Your task to perform on an android device: Go to CNN.com Image 0: 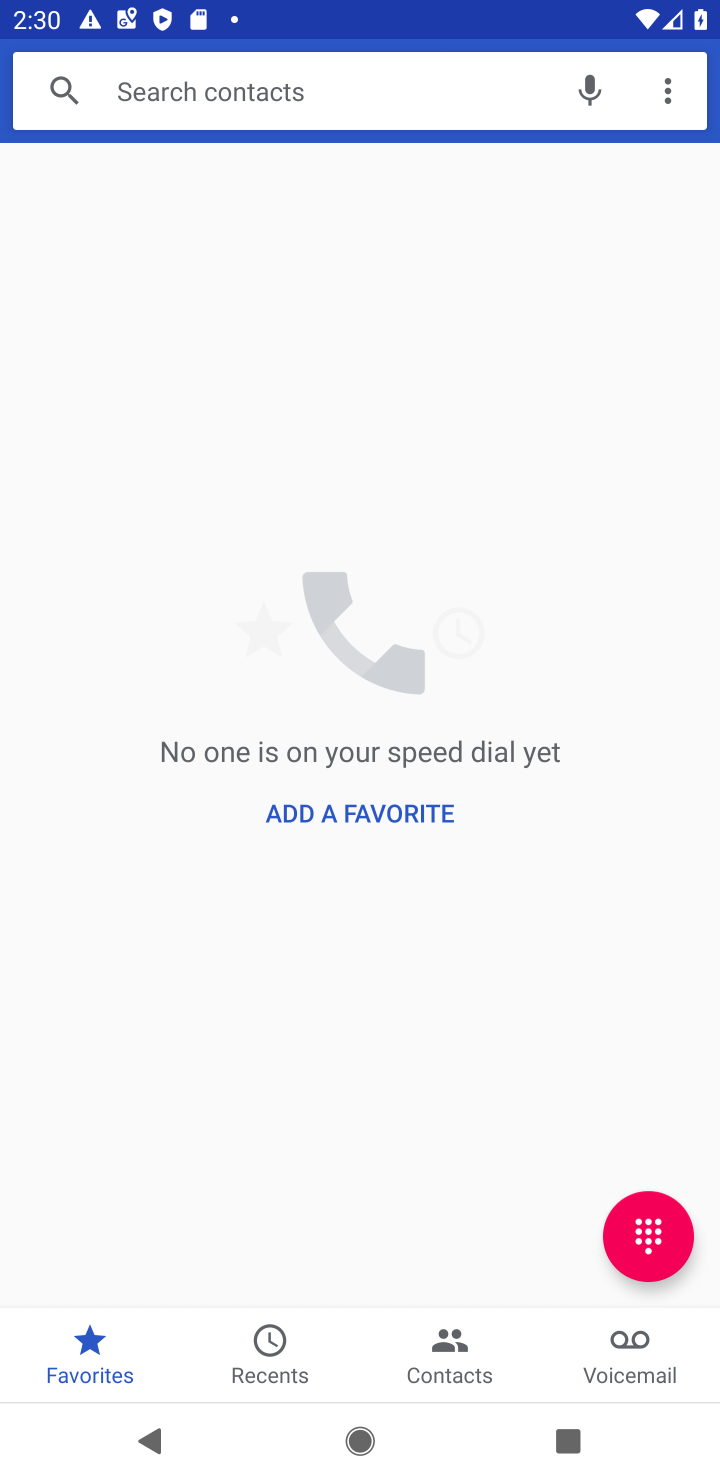
Step 0: press home button
Your task to perform on an android device: Go to CNN.com Image 1: 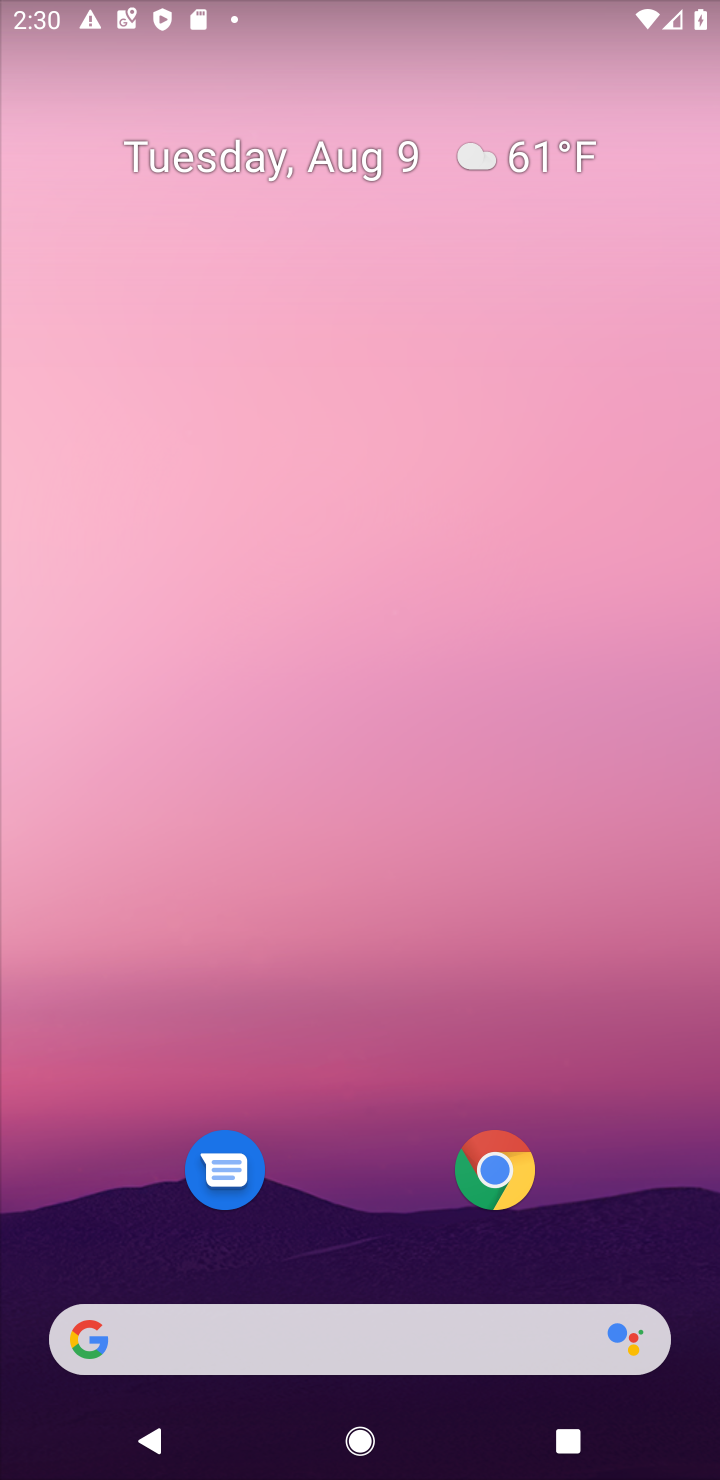
Step 1: drag from (277, 1209) to (376, 268)
Your task to perform on an android device: Go to CNN.com Image 2: 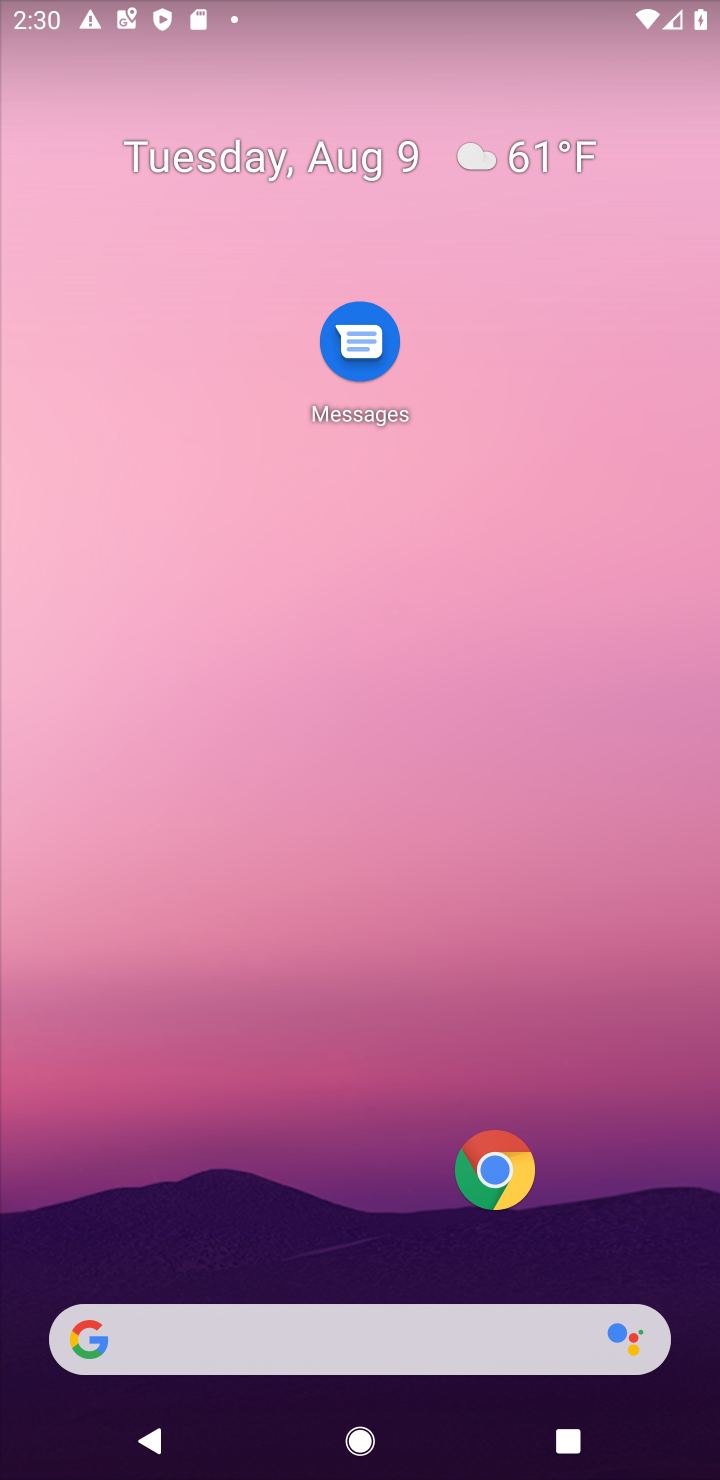
Step 2: click (491, 1188)
Your task to perform on an android device: Go to CNN.com Image 3: 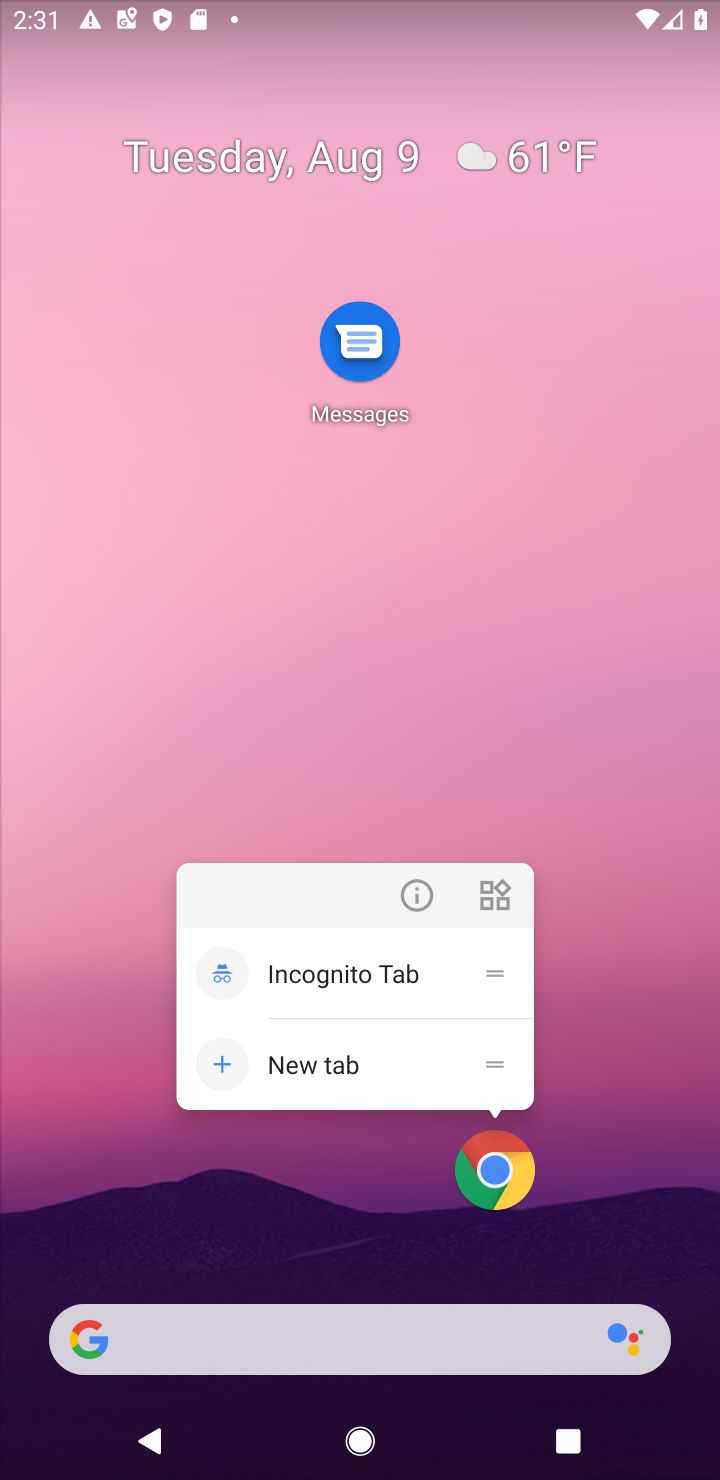
Step 3: click (491, 1173)
Your task to perform on an android device: Go to CNN.com Image 4: 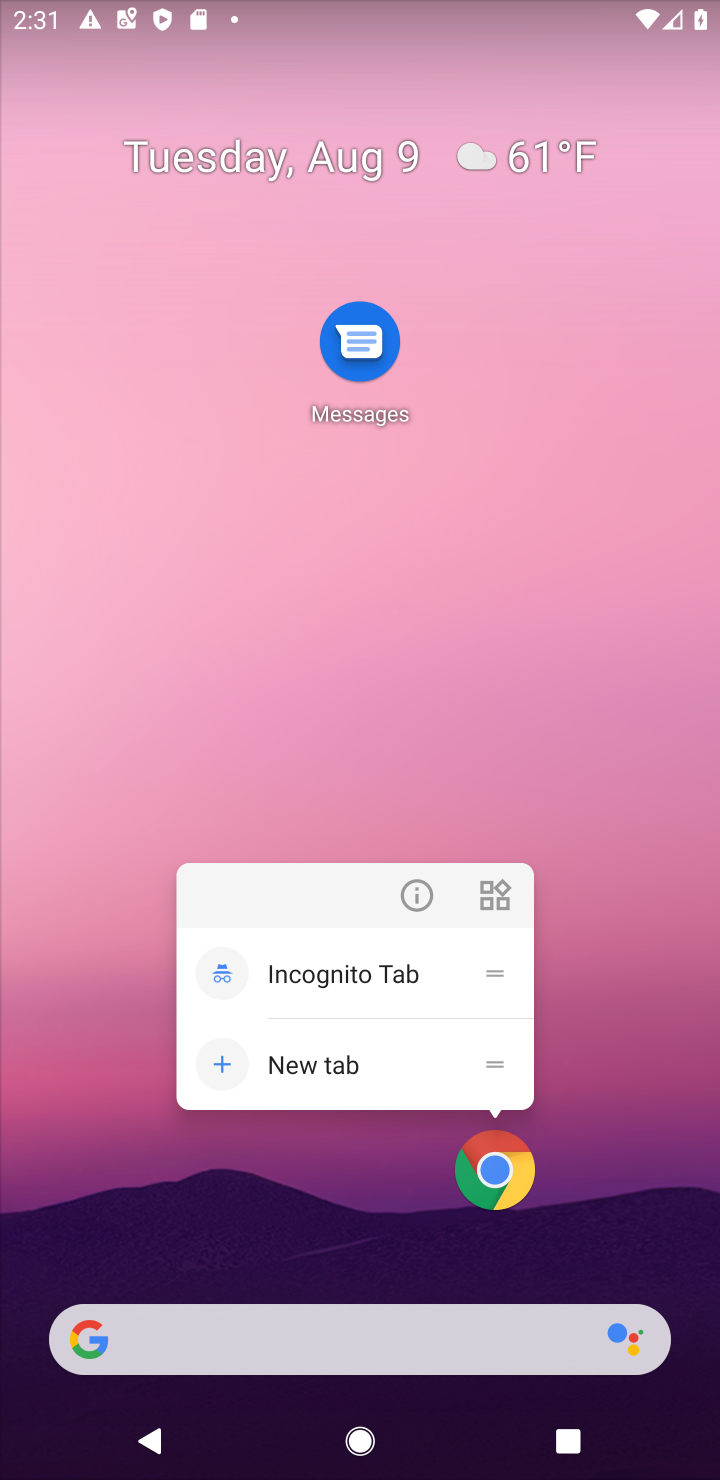
Step 4: click (473, 1177)
Your task to perform on an android device: Go to CNN.com Image 5: 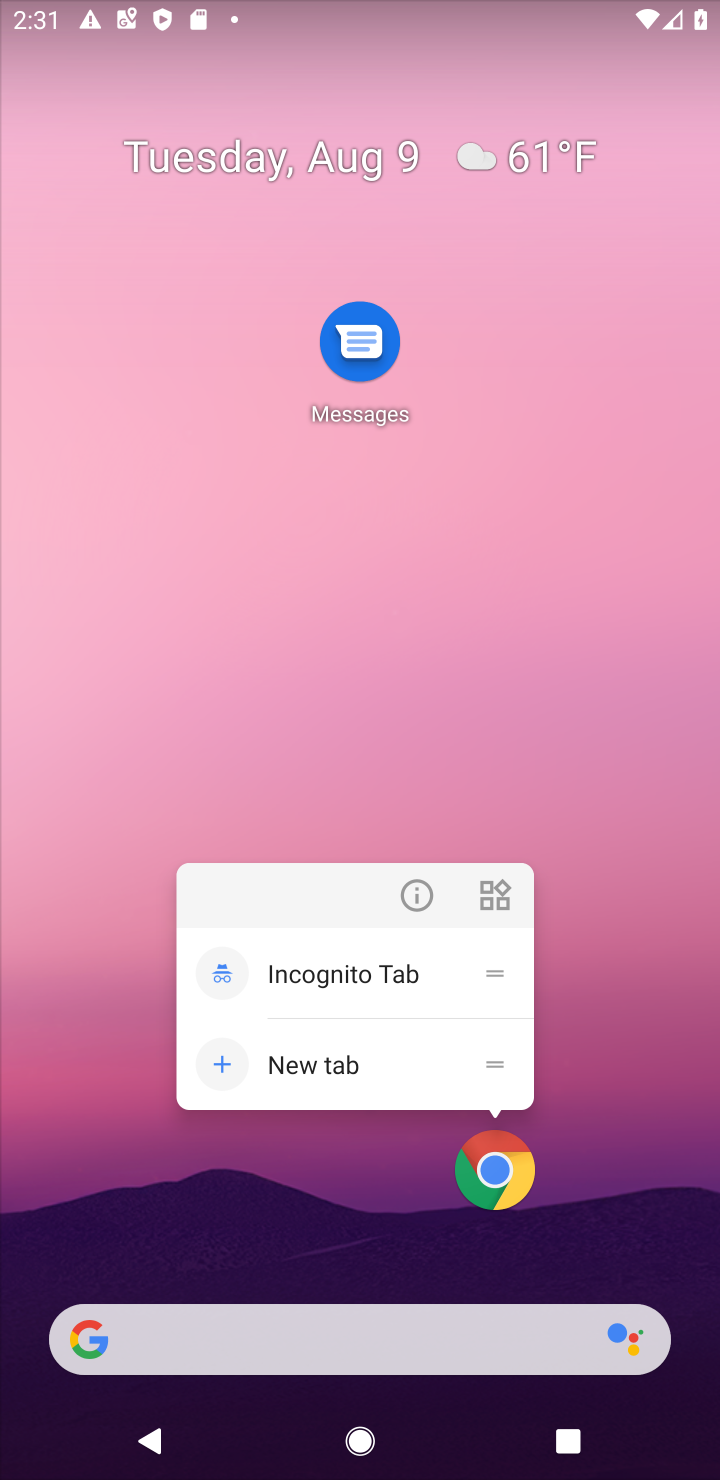
Step 5: click (497, 1186)
Your task to perform on an android device: Go to CNN.com Image 6: 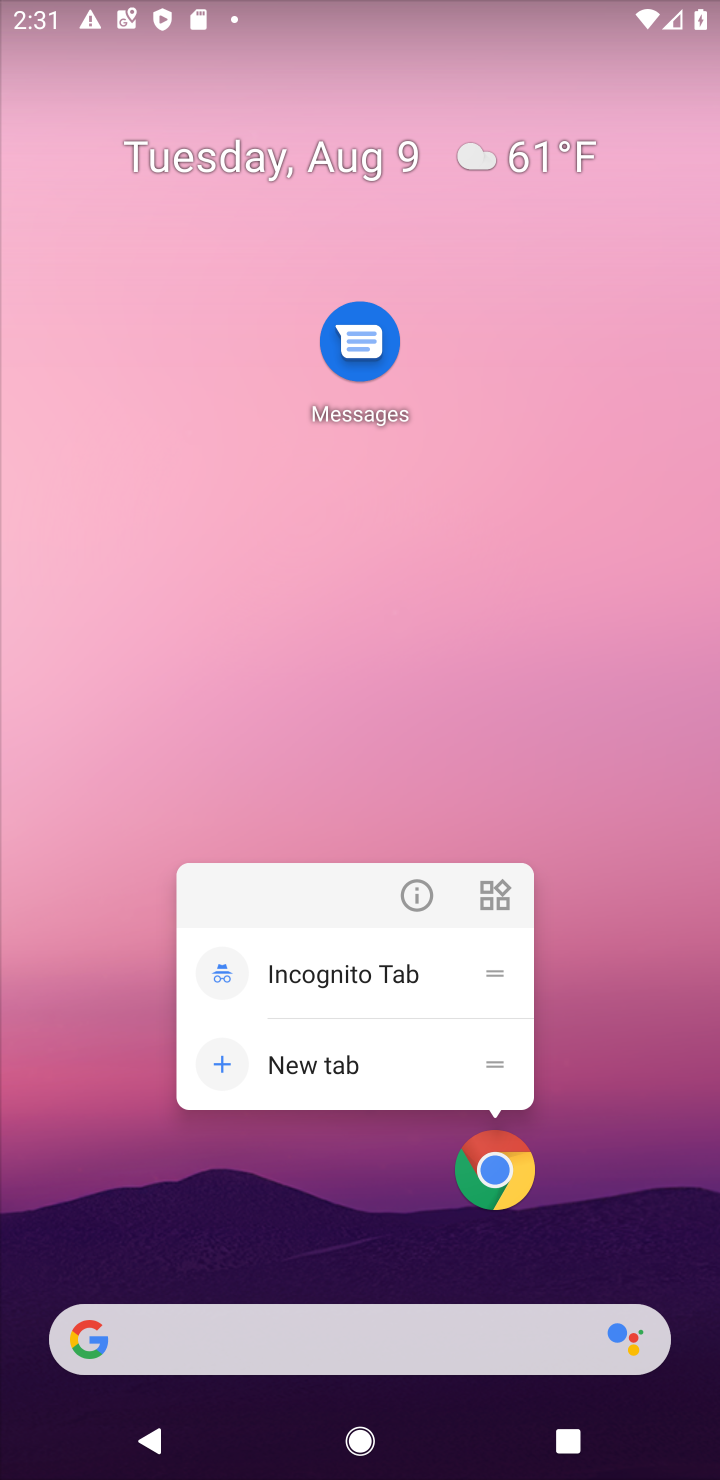
Step 6: click (463, 1172)
Your task to perform on an android device: Go to CNN.com Image 7: 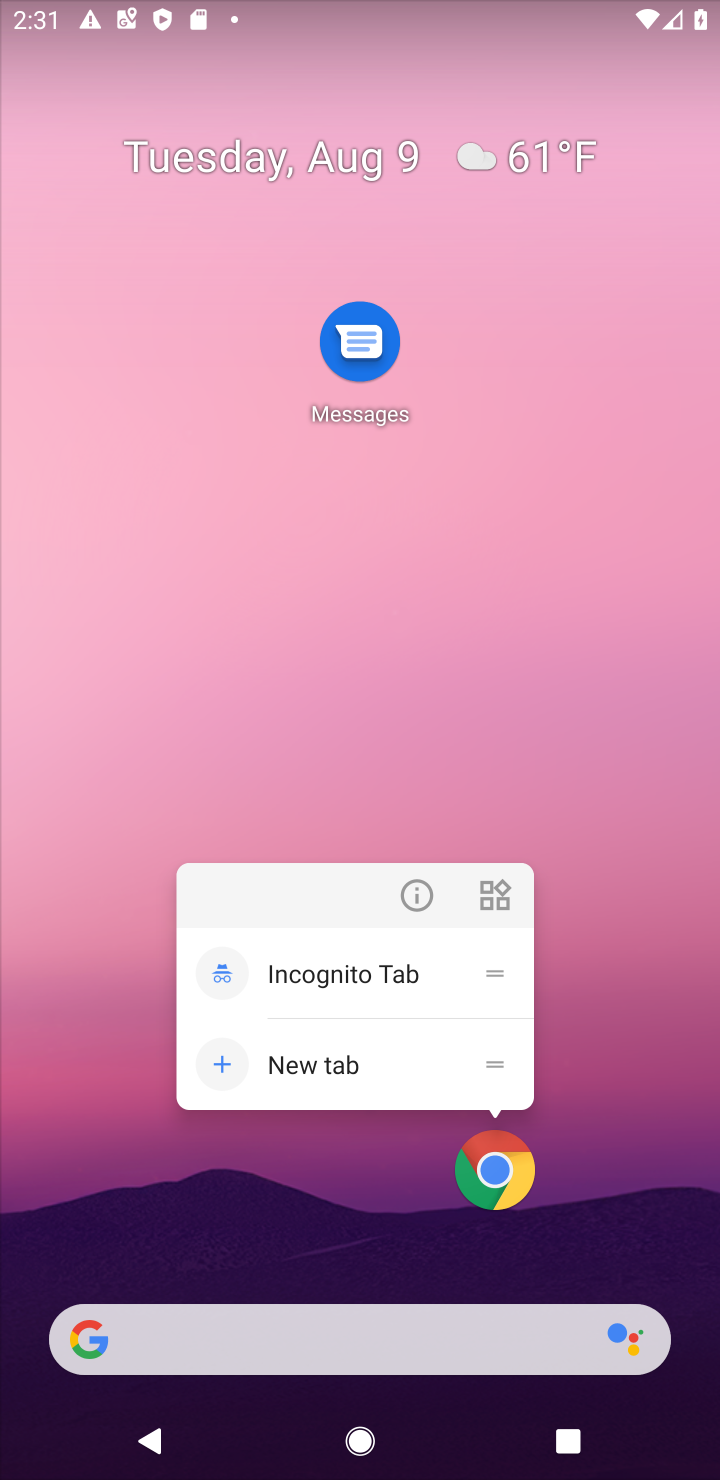
Step 7: click (502, 1189)
Your task to perform on an android device: Go to CNN.com Image 8: 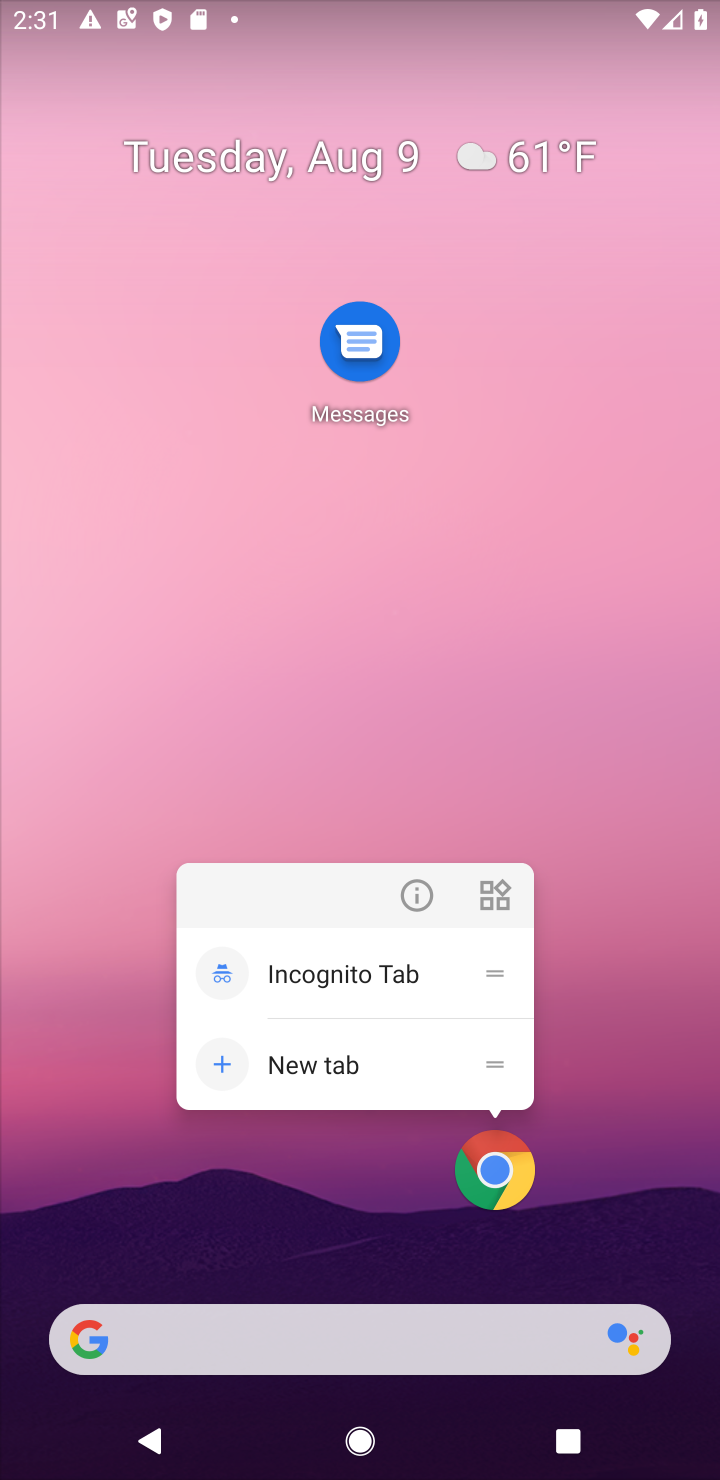
Step 8: click (537, 1198)
Your task to perform on an android device: Go to CNN.com Image 9: 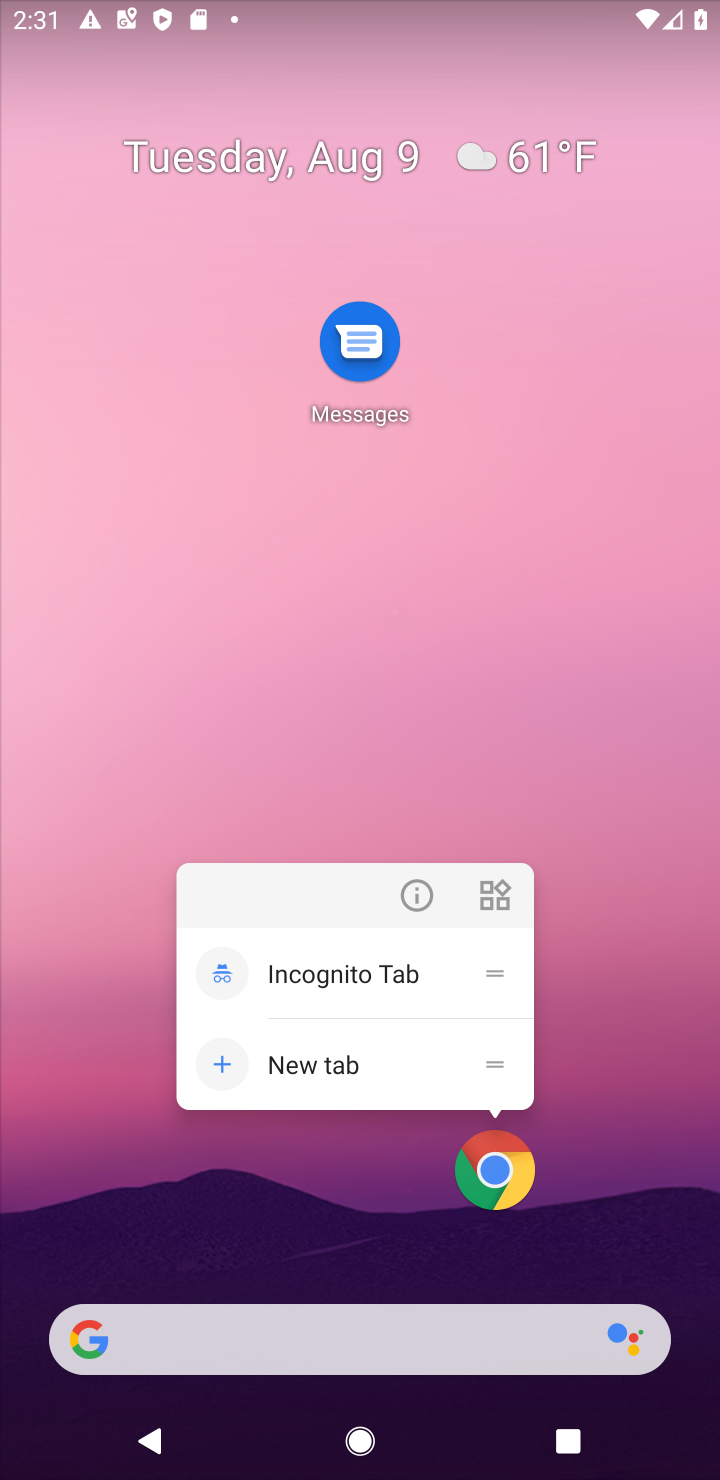
Step 9: click (495, 1165)
Your task to perform on an android device: Go to CNN.com Image 10: 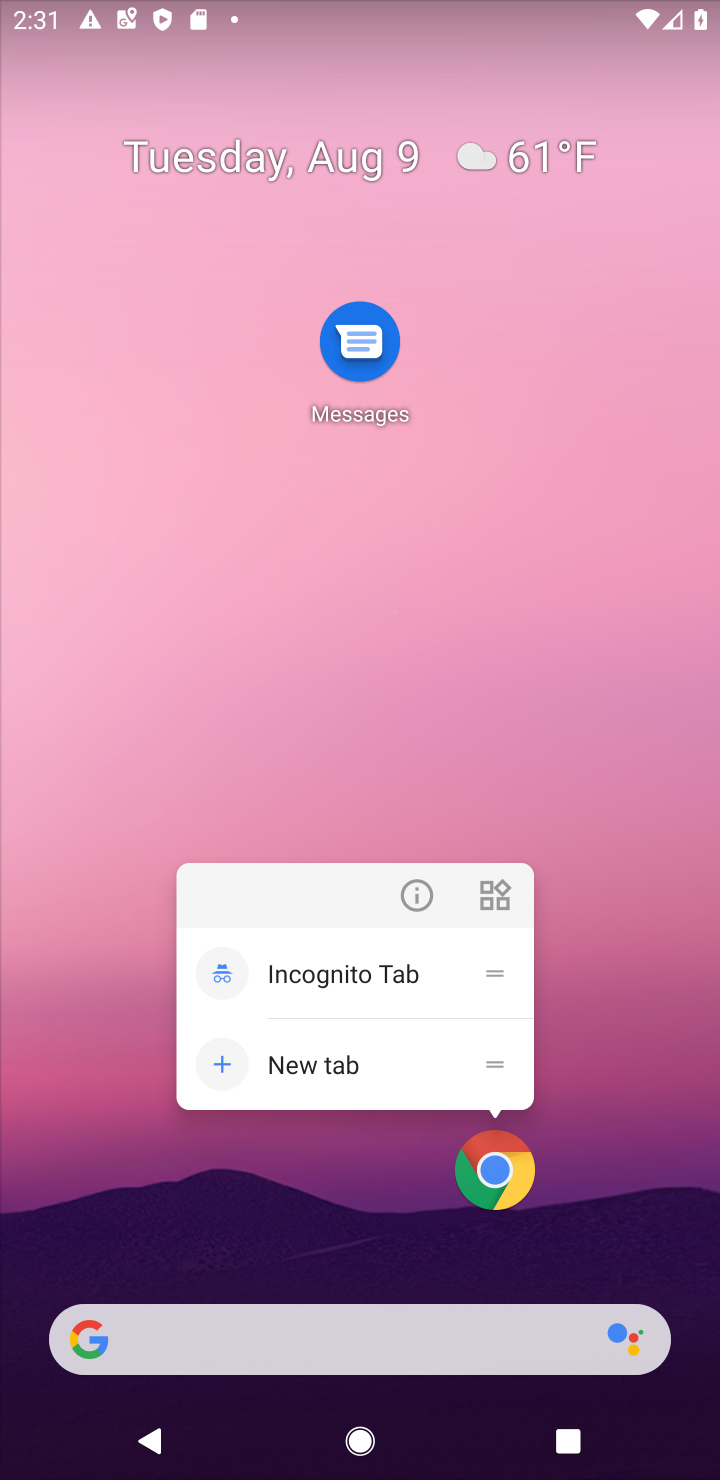
Step 10: drag from (310, 940) to (378, 17)
Your task to perform on an android device: Go to CNN.com Image 11: 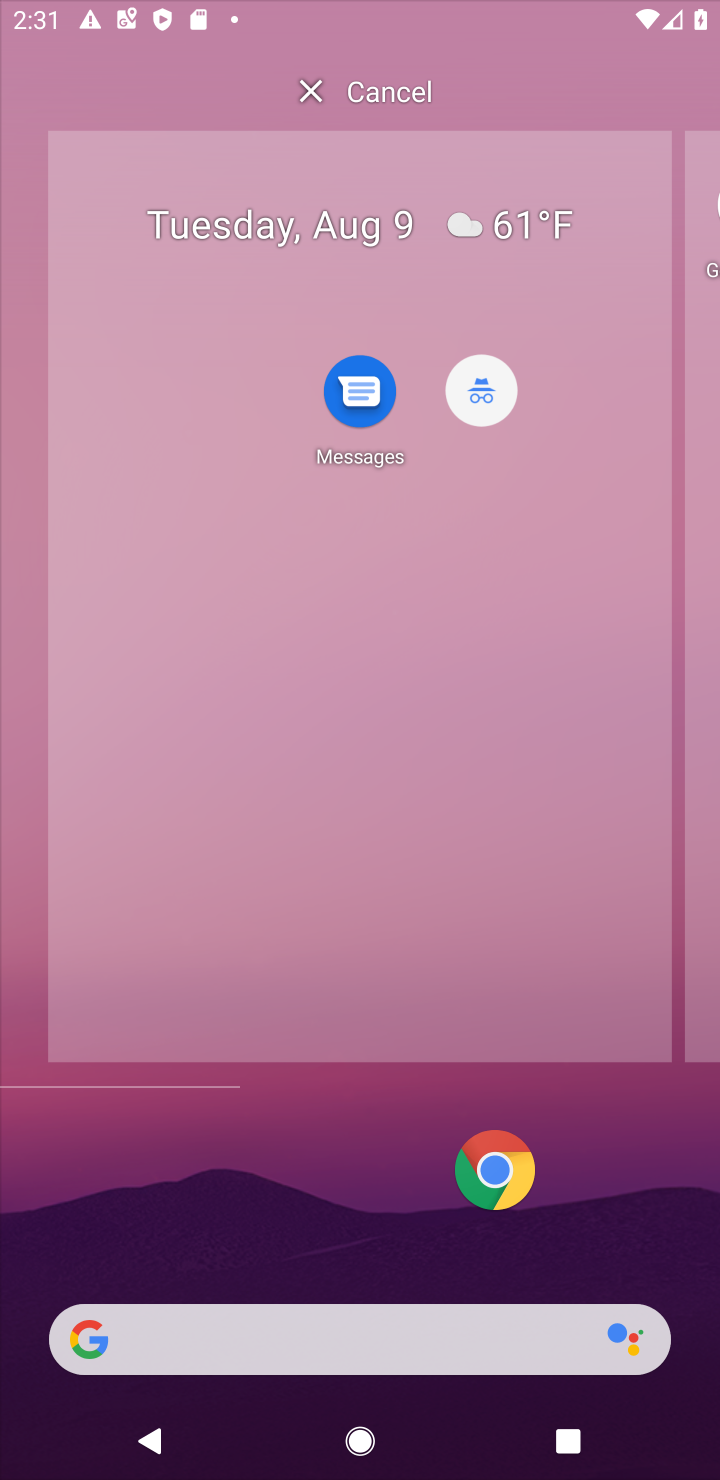
Step 11: drag from (352, 1242) to (413, 220)
Your task to perform on an android device: Go to CNN.com Image 12: 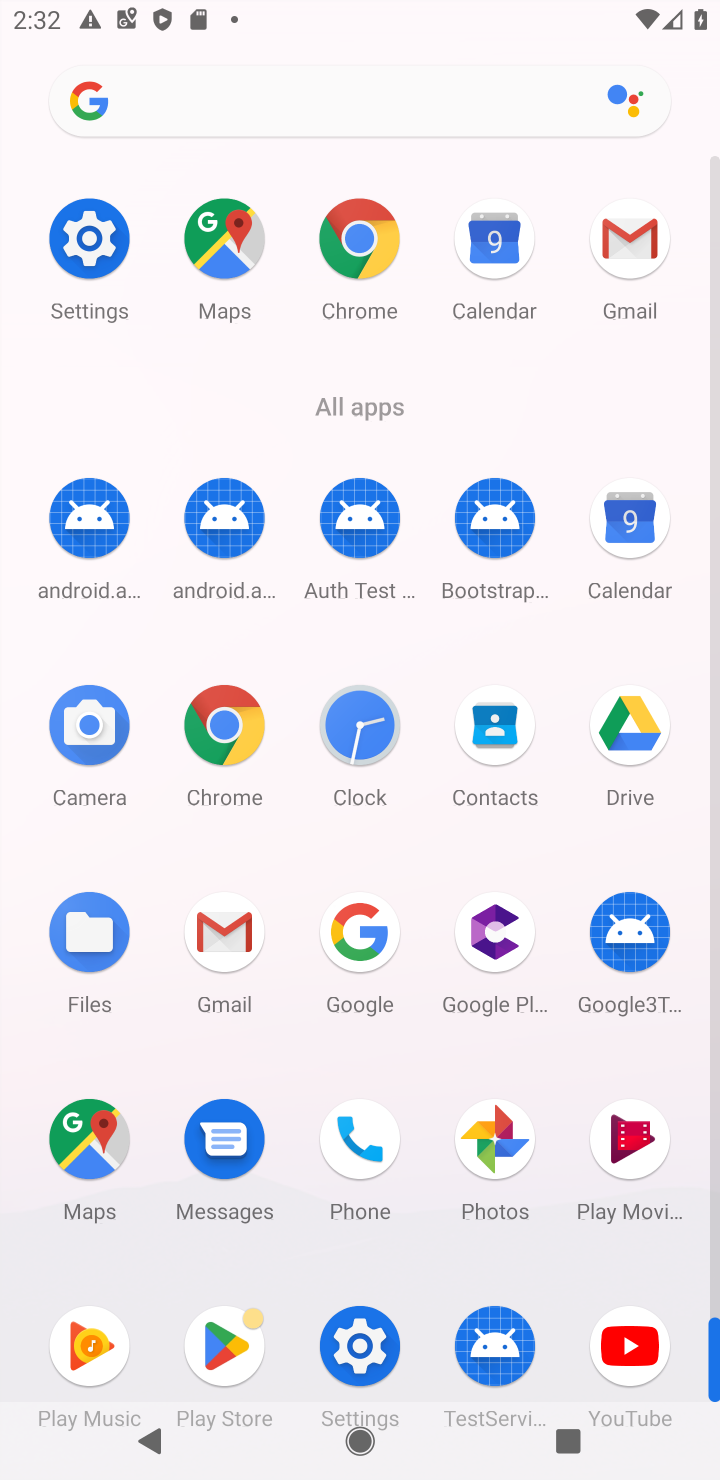
Step 12: click (348, 209)
Your task to perform on an android device: Go to CNN.com Image 13: 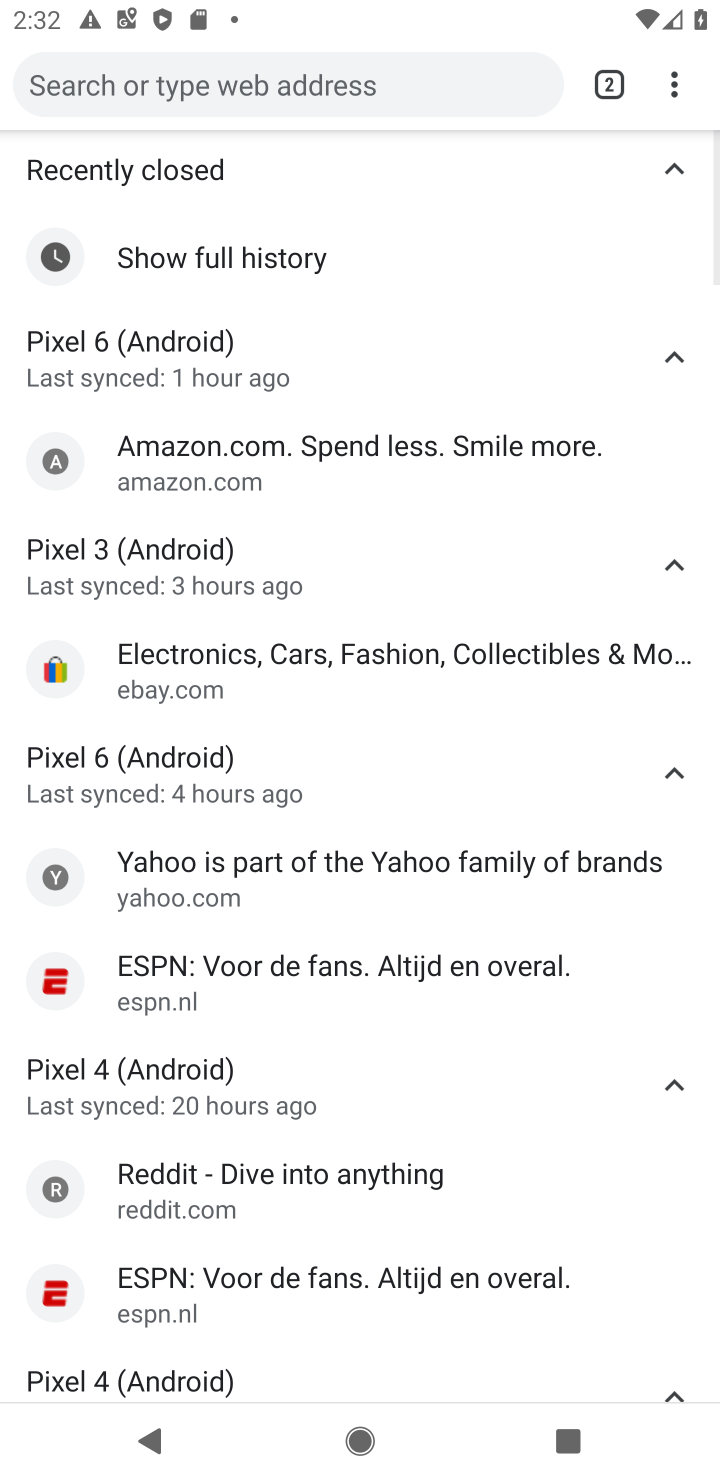
Step 13: click (339, 95)
Your task to perform on an android device: Go to CNN.com Image 14: 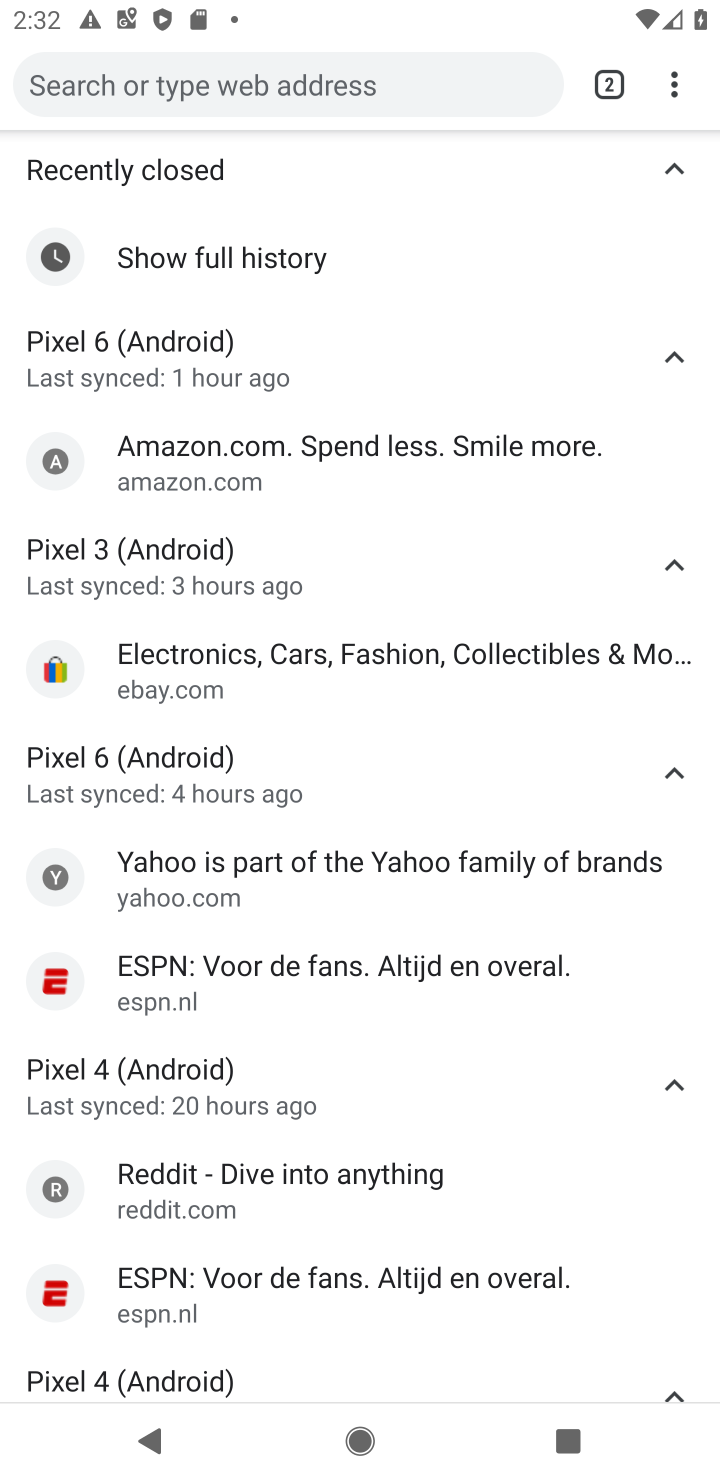
Step 14: click (340, 76)
Your task to perform on an android device: Go to CNN.com Image 15: 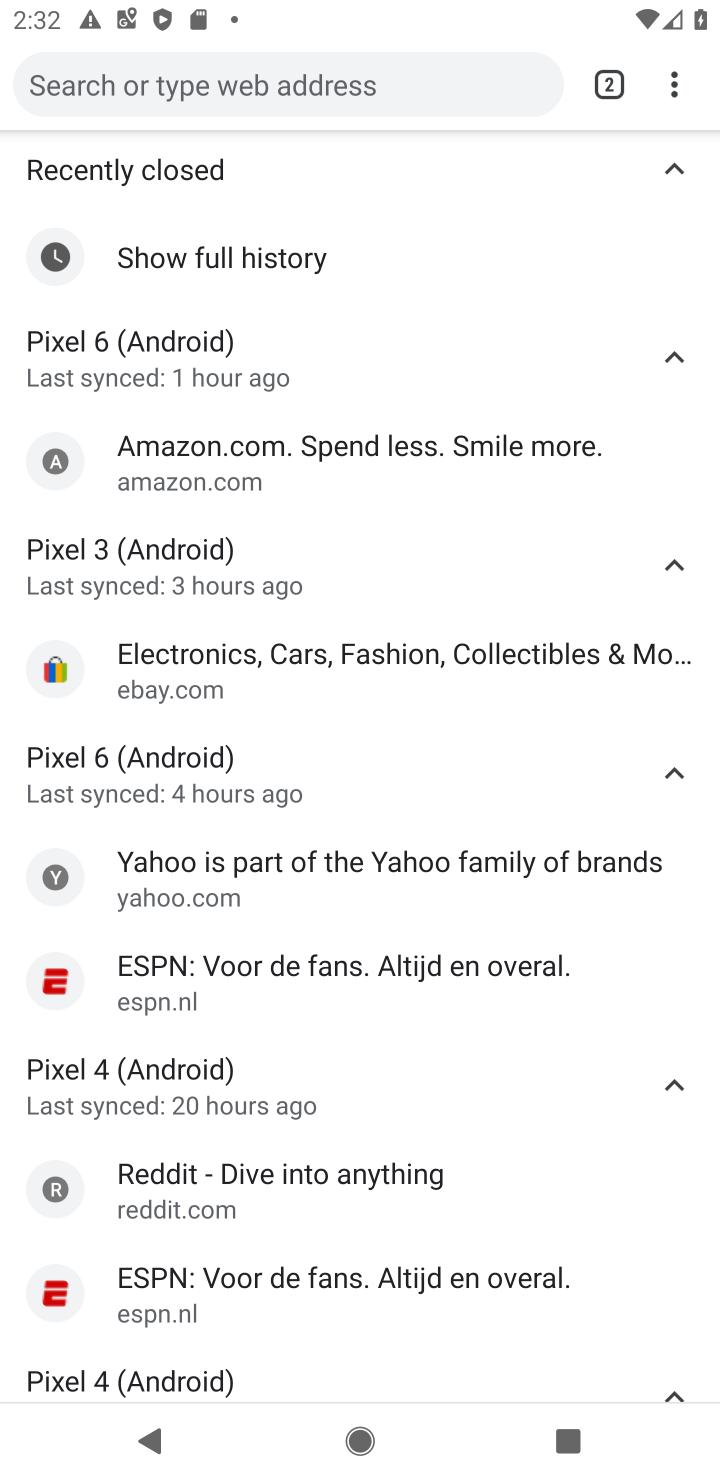
Step 15: click (344, 80)
Your task to perform on an android device: Go to CNN.com Image 16: 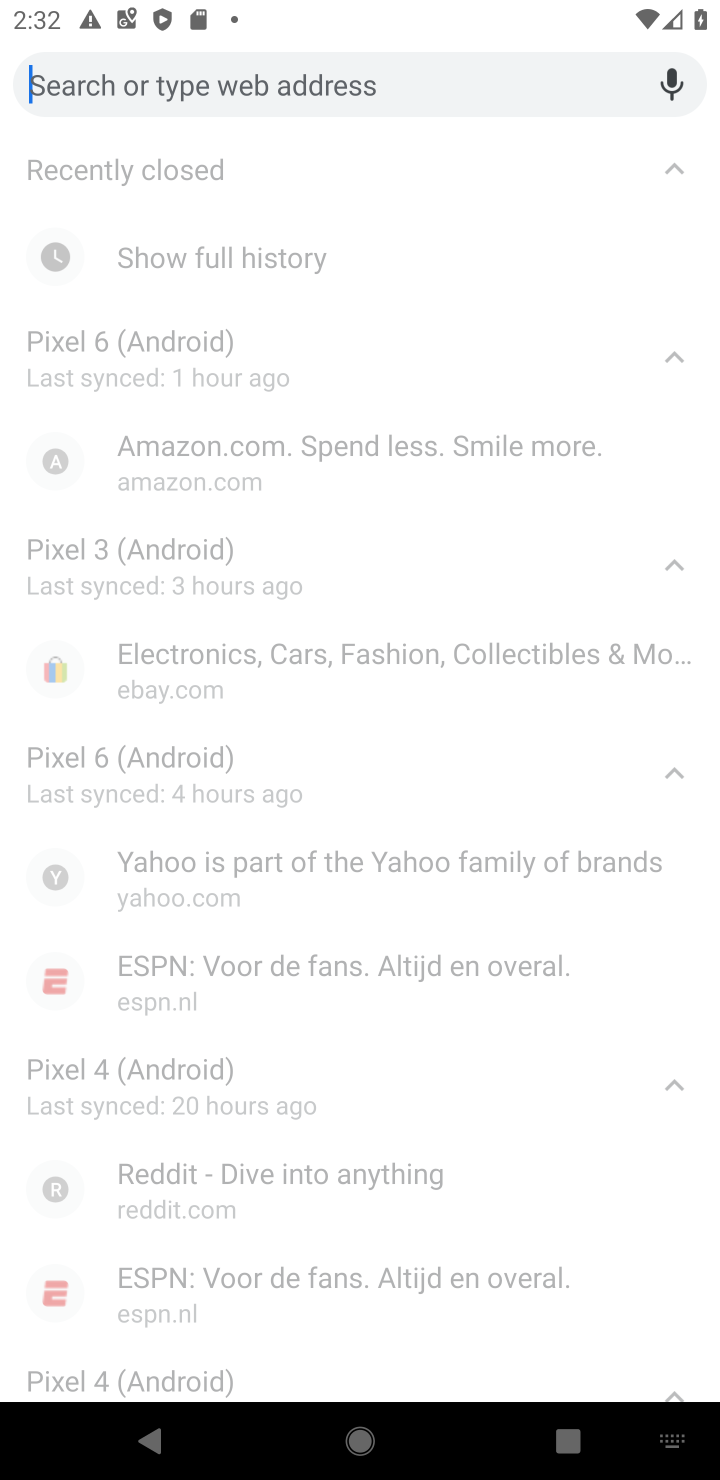
Step 16: type "CNN.com"
Your task to perform on an android device: Go to CNN.com Image 17: 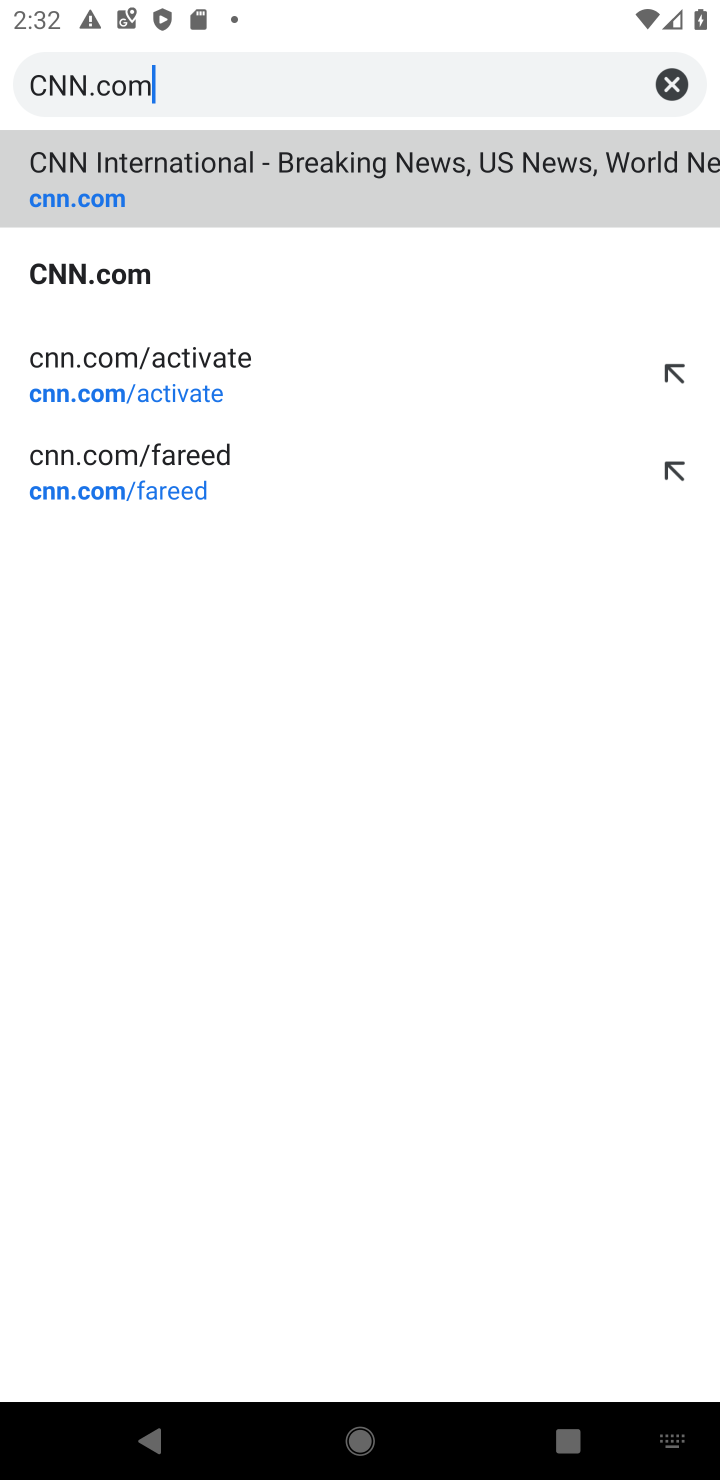
Step 17: click (201, 170)
Your task to perform on an android device: Go to CNN.com Image 18: 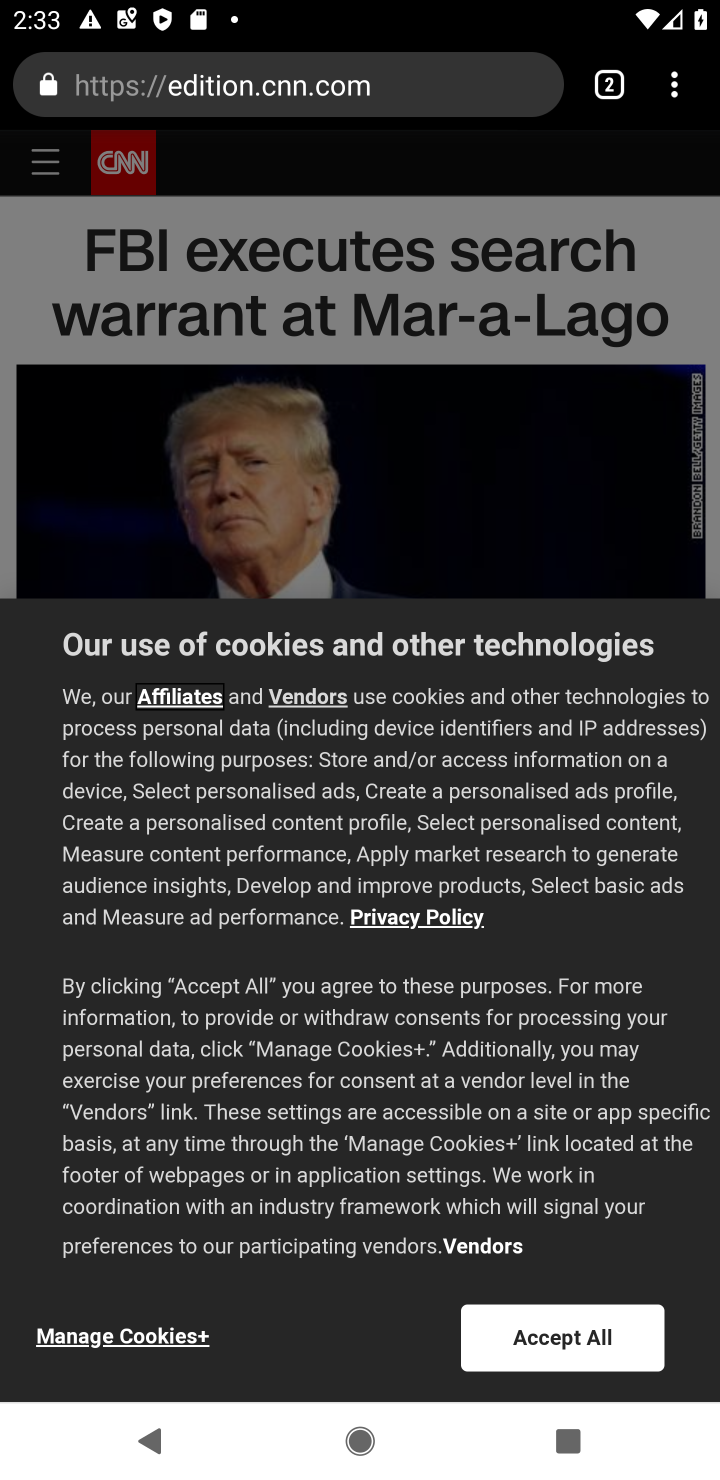
Step 18: task complete